Your task to perform on an android device: Go to settings Image 0: 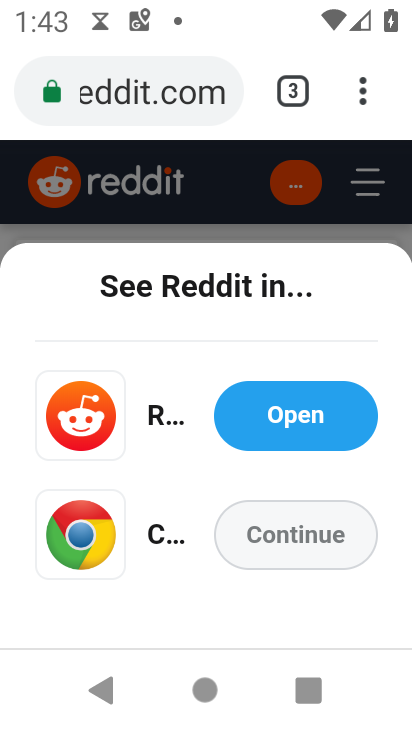
Step 0: press home button
Your task to perform on an android device: Go to settings Image 1: 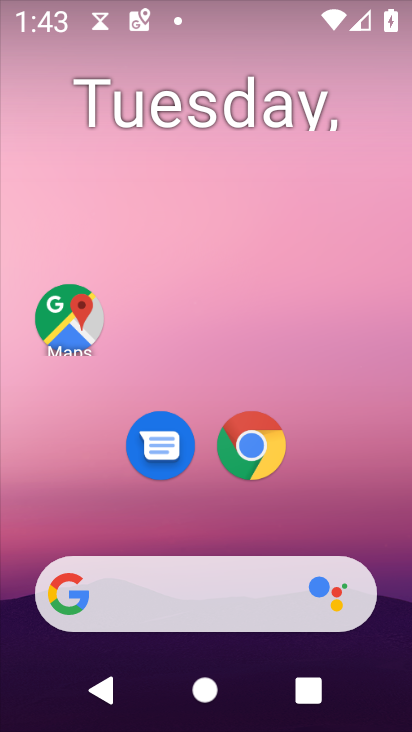
Step 1: drag from (281, 622) to (306, 57)
Your task to perform on an android device: Go to settings Image 2: 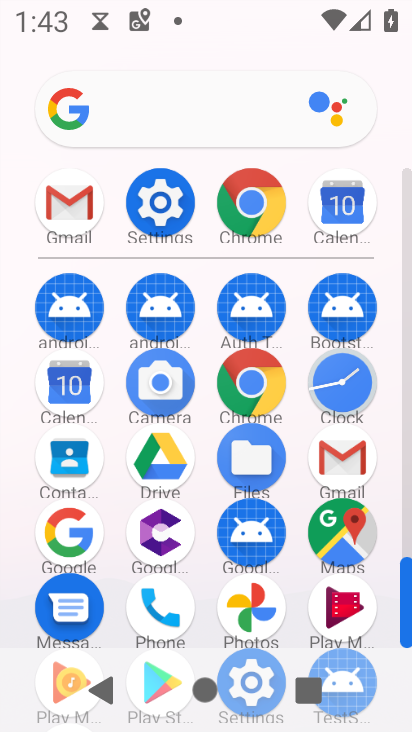
Step 2: click (172, 217)
Your task to perform on an android device: Go to settings Image 3: 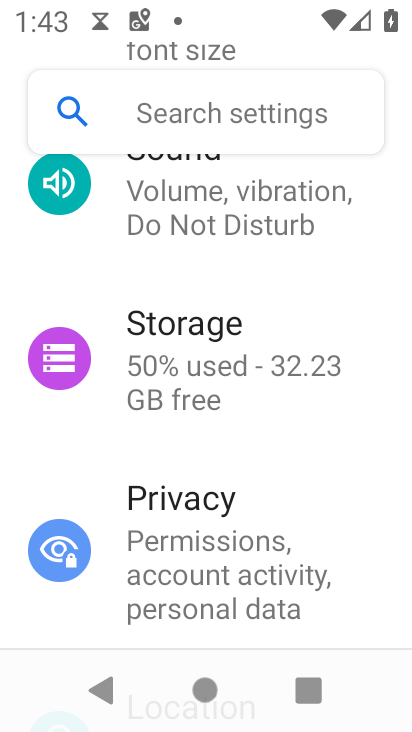
Step 3: task complete